Your task to perform on an android device: turn off picture-in-picture Image 0: 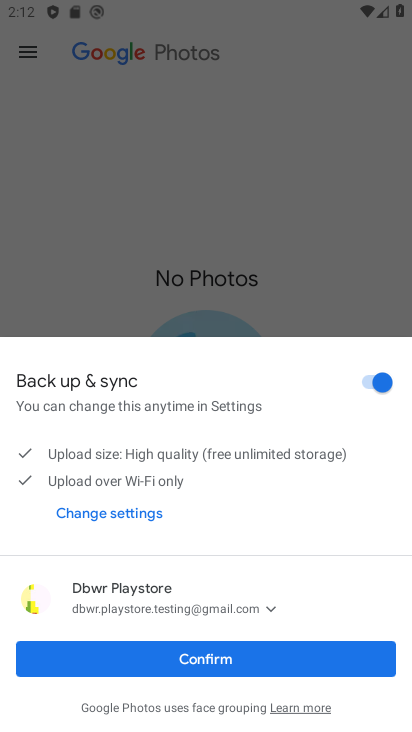
Step 0: press home button
Your task to perform on an android device: turn off picture-in-picture Image 1: 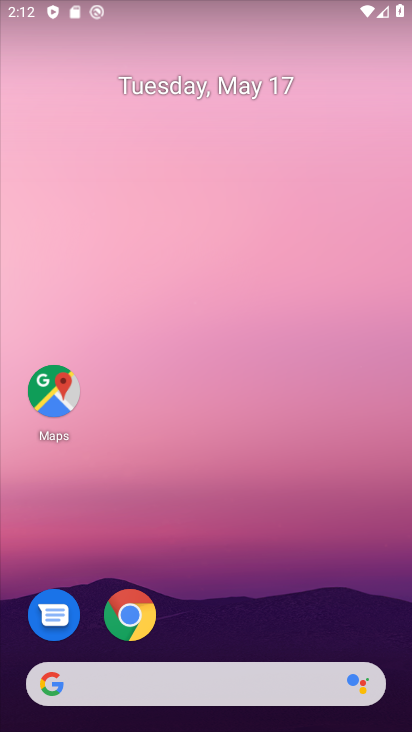
Step 1: drag from (208, 720) to (207, 188)
Your task to perform on an android device: turn off picture-in-picture Image 2: 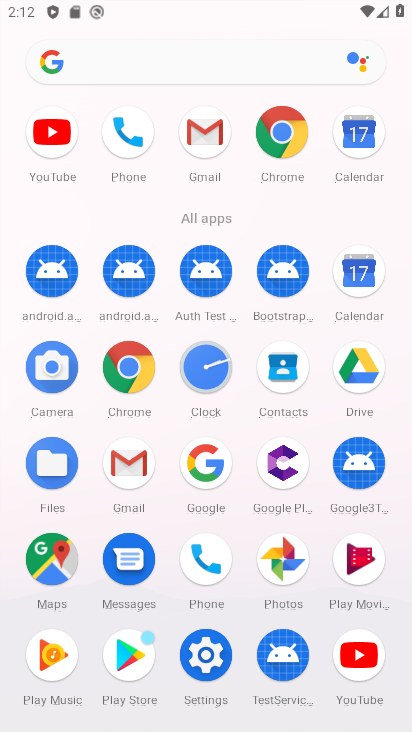
Step 2: click (207, 657)
Your task to perform on an android device: turn off picture-in-picture Image 3: 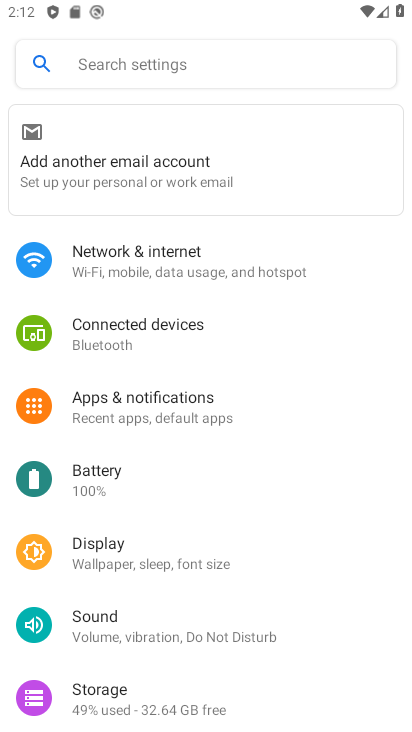
Step 3: click (179, 411)
Your task to perform on an android device: turn off picture-in-picture Image 4: 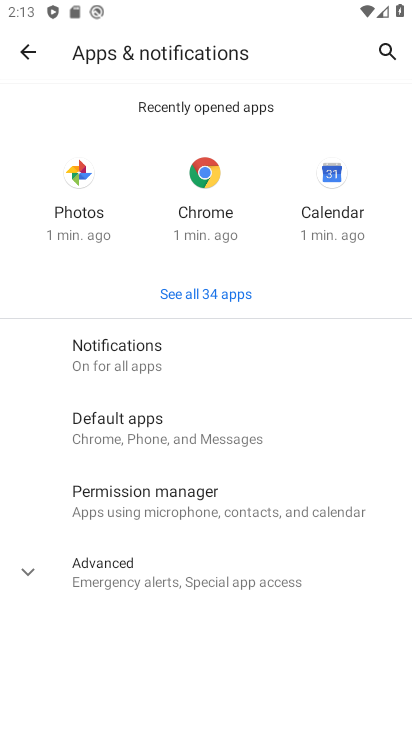
Step 4: click (124, 564)
Your task to perform on an android device: turn off picture-in-picture Image 5: 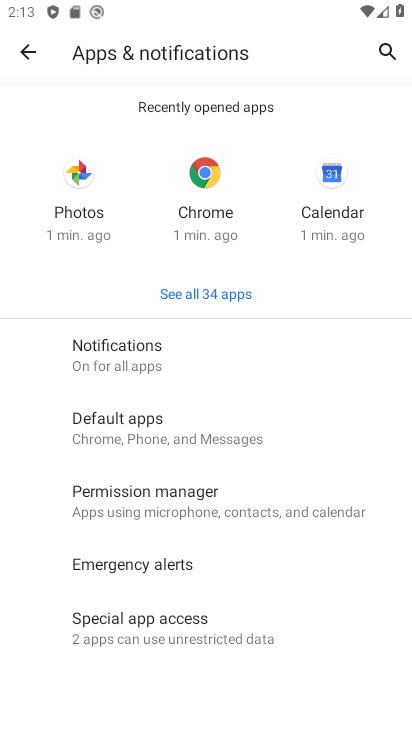
Step 5: click (134, 631)
Your task to perform on an android device: turn off picture-in-picture Image 6: 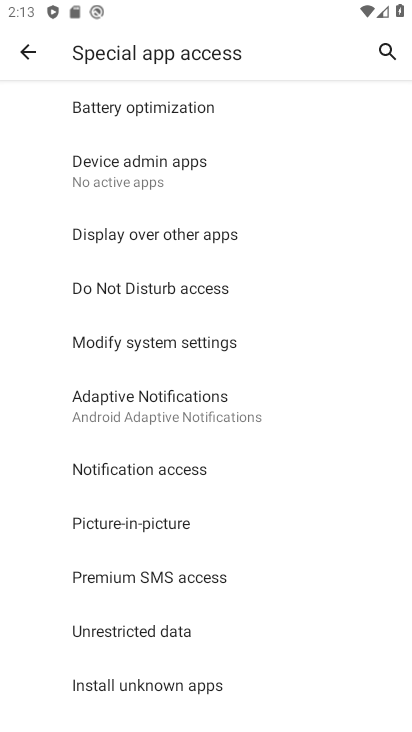
Step 6: click (158, 519)
Your task to perform on an android device: turn off picture-in-picture Image 7: 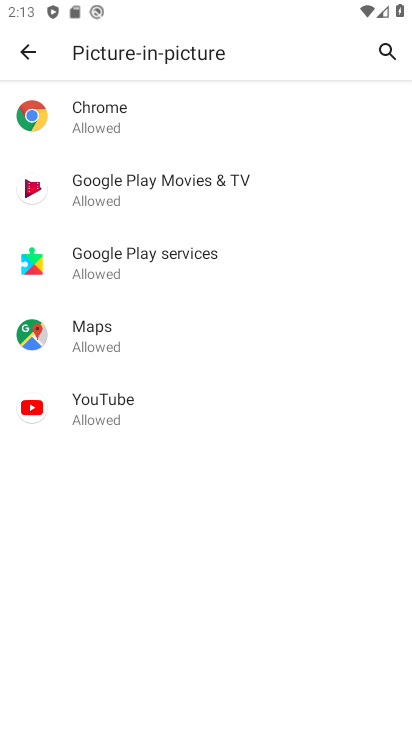
Step 7: click (87, 406)
Your task to perform on an android device: turn off picture-in-picture Image 8: 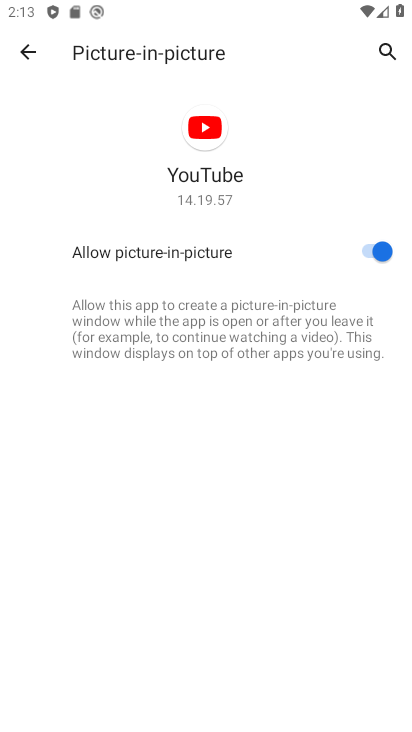
Step 8: click (365, 253)
Your task to perform on an android device: turn off picture-in-picture Image 9: 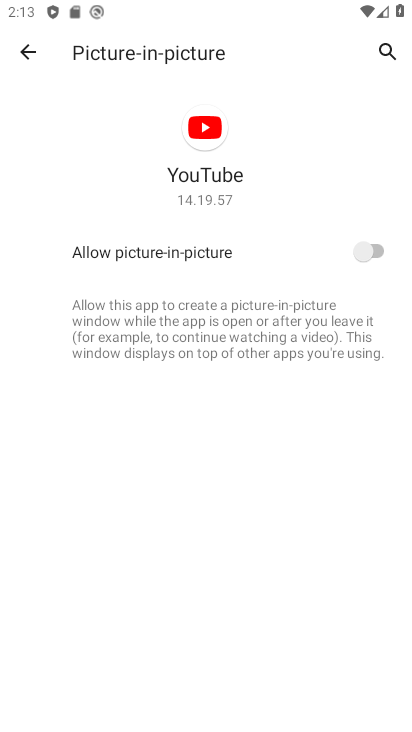
Step 9: task complete